Your task to perform on an android device: install app "YouTube Kids" Image 0: 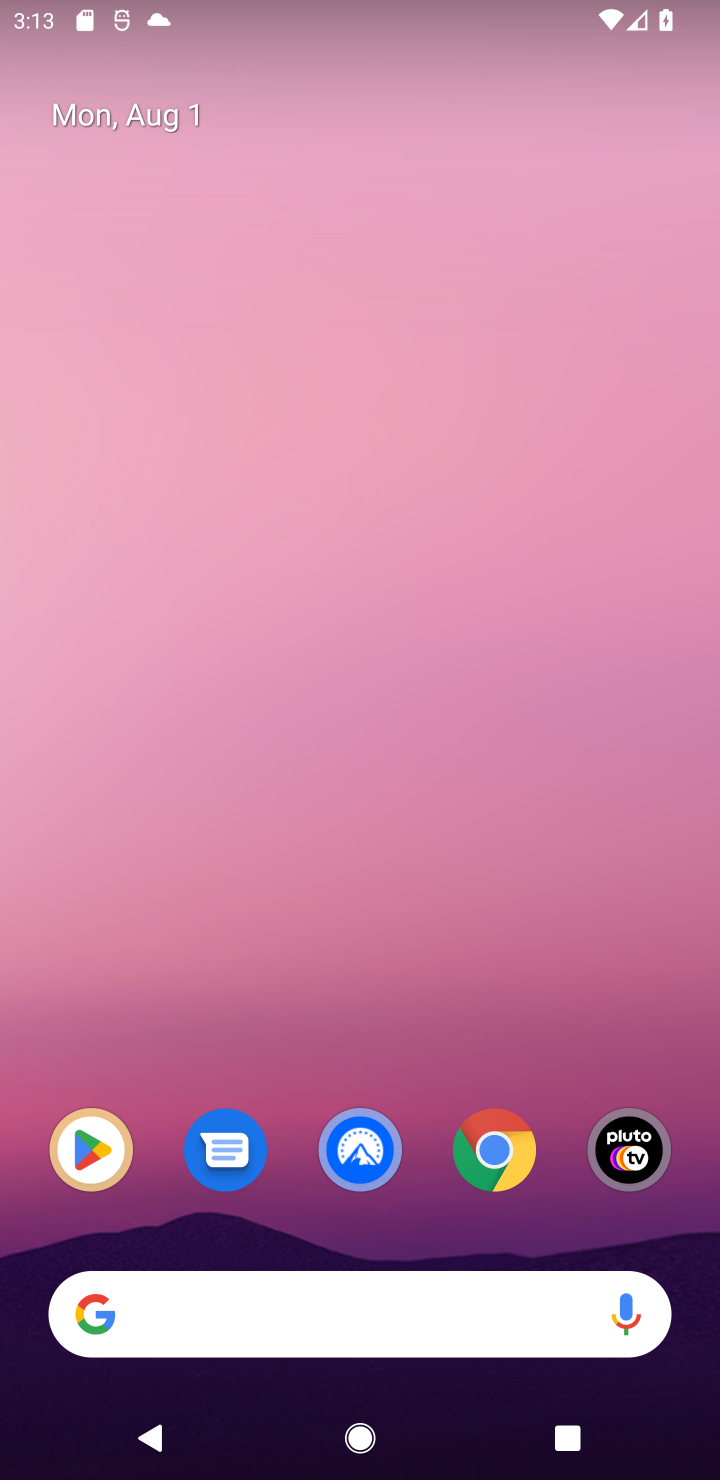
Step 0: click (127, 1163)
Your task to perform on an android device: install app "YouTube Kids" Image 1: 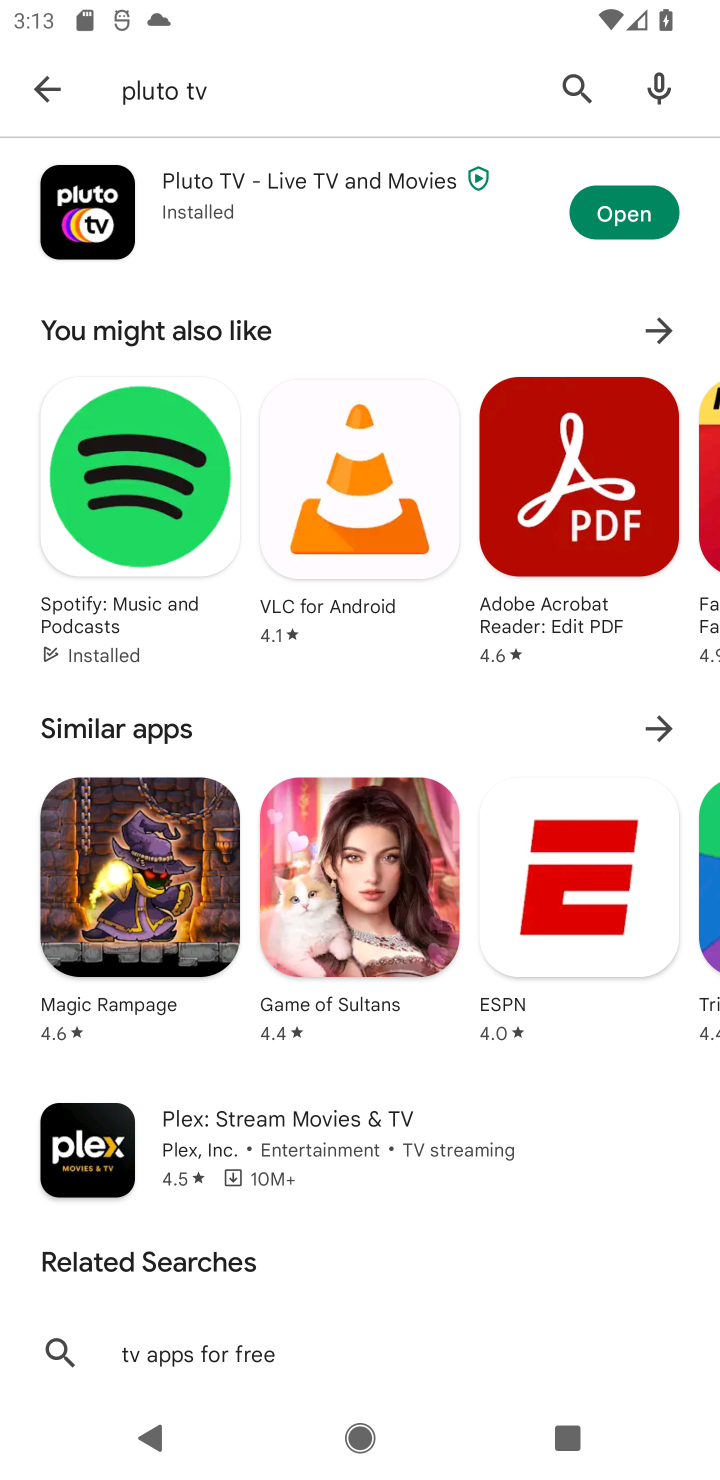
Step 1: click (585, 93)
Your task to perform on an android device: install app "YouTube Kids" Image 2: 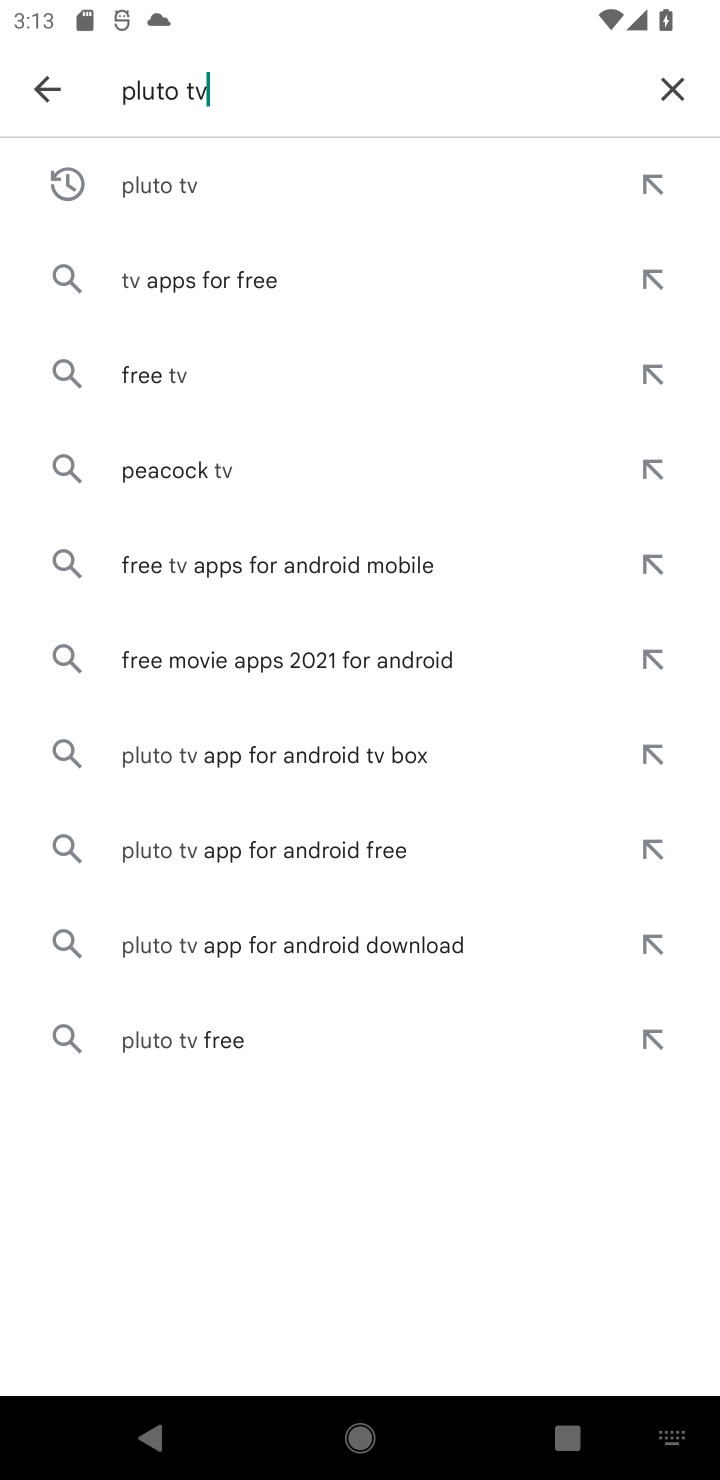
Step 2: click (669, 82)
Your task to perform on an android device: install app "YouTube Kids" Image 3: 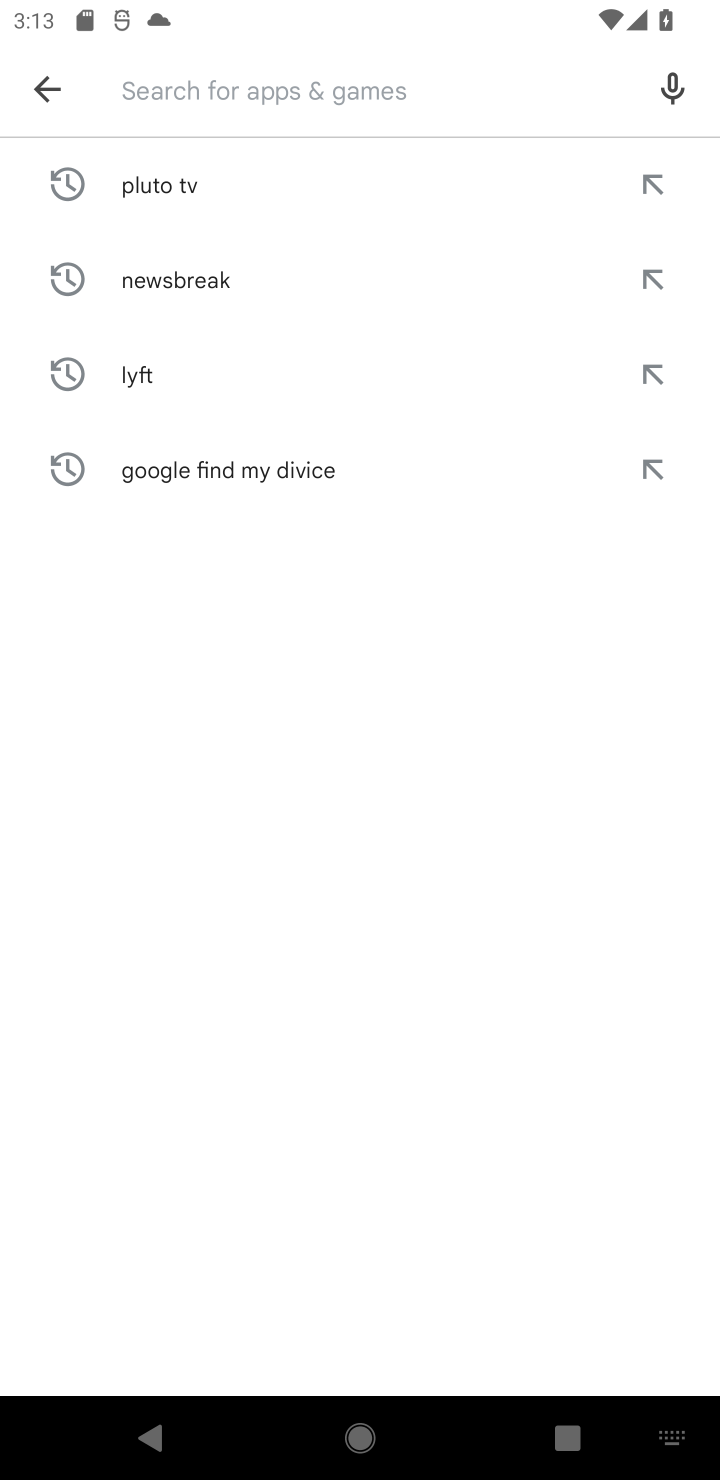
Step 3: type "youtube kid"
Your task to perform on an android device: install app "YouTube Kids" Image 4: 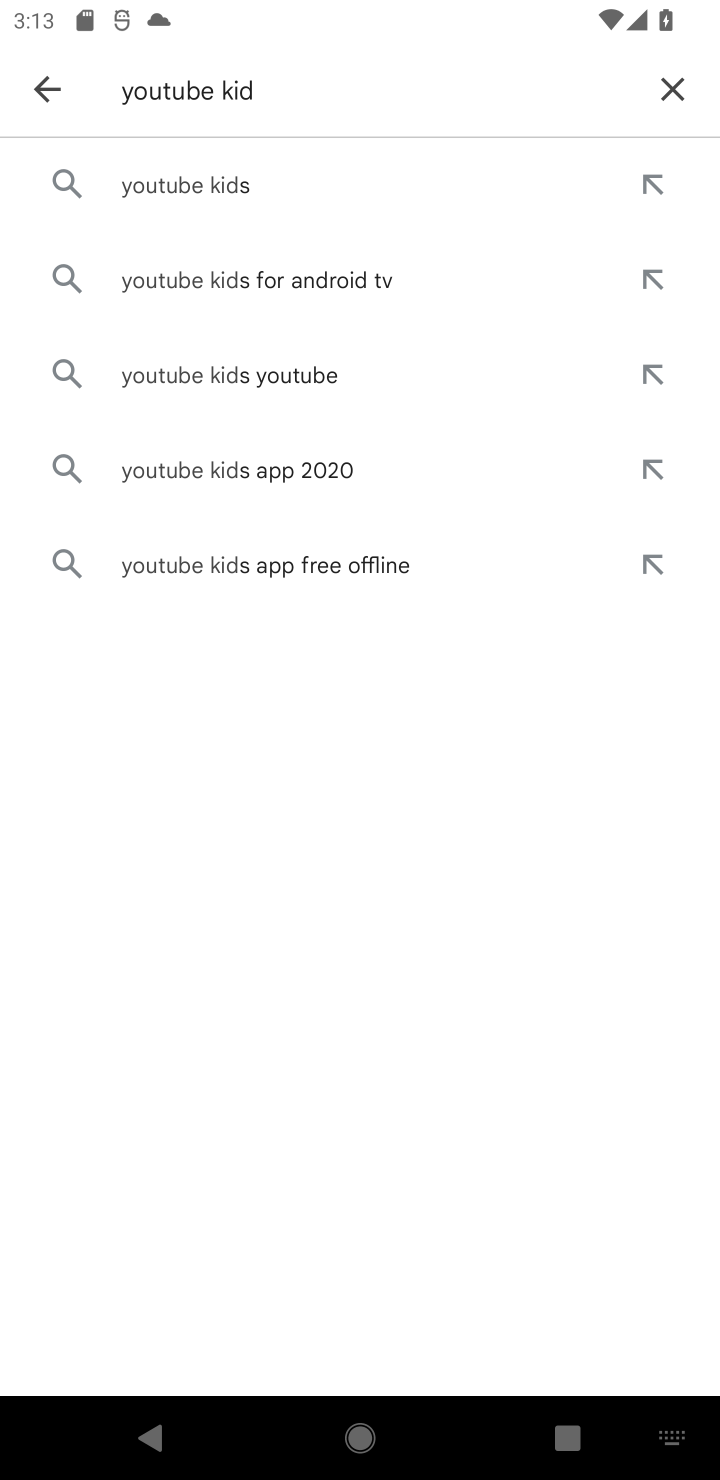
Step 4: click (300, 155)
Your task to perform on an android device: install app "YouTube Kids" Image 5: 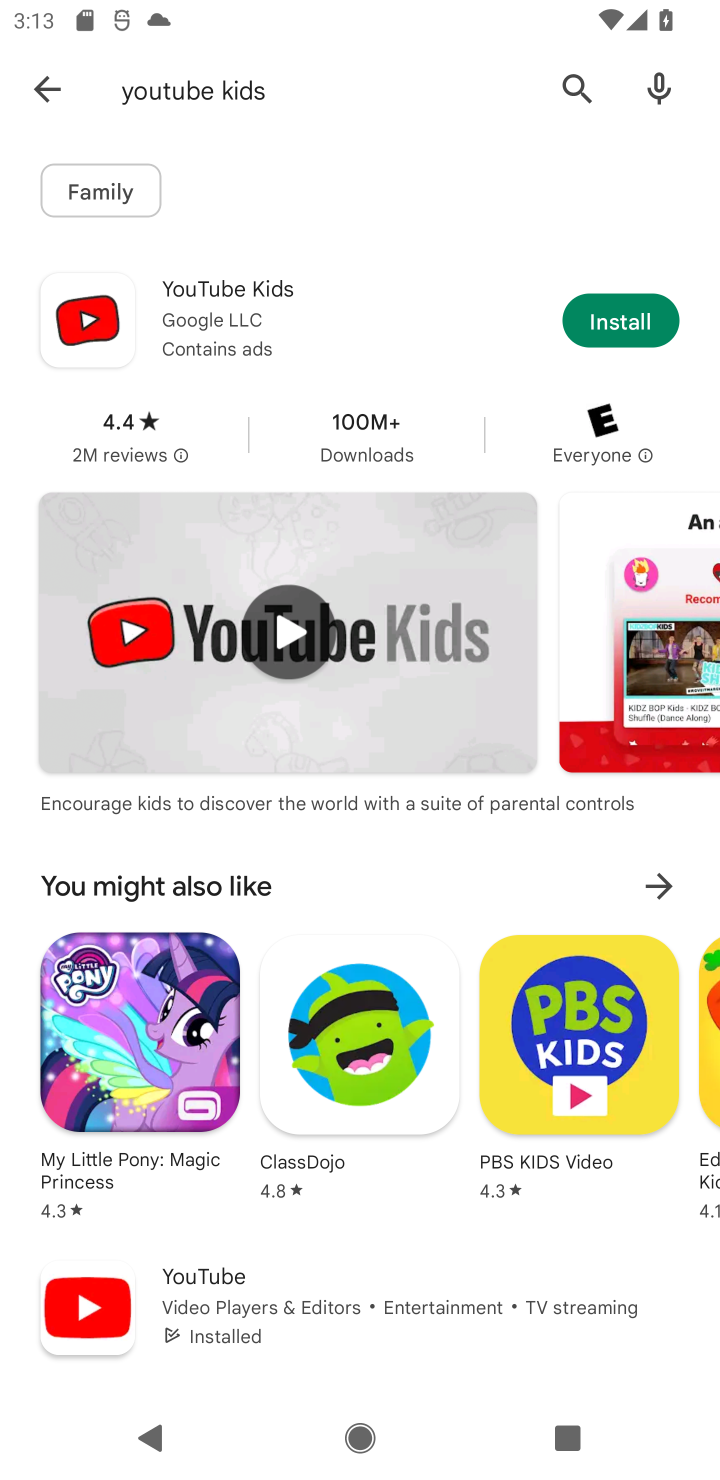
Step 5: click (636, 312)
Your task to perform on an android device: install app "YouTube Kids" Image 6: 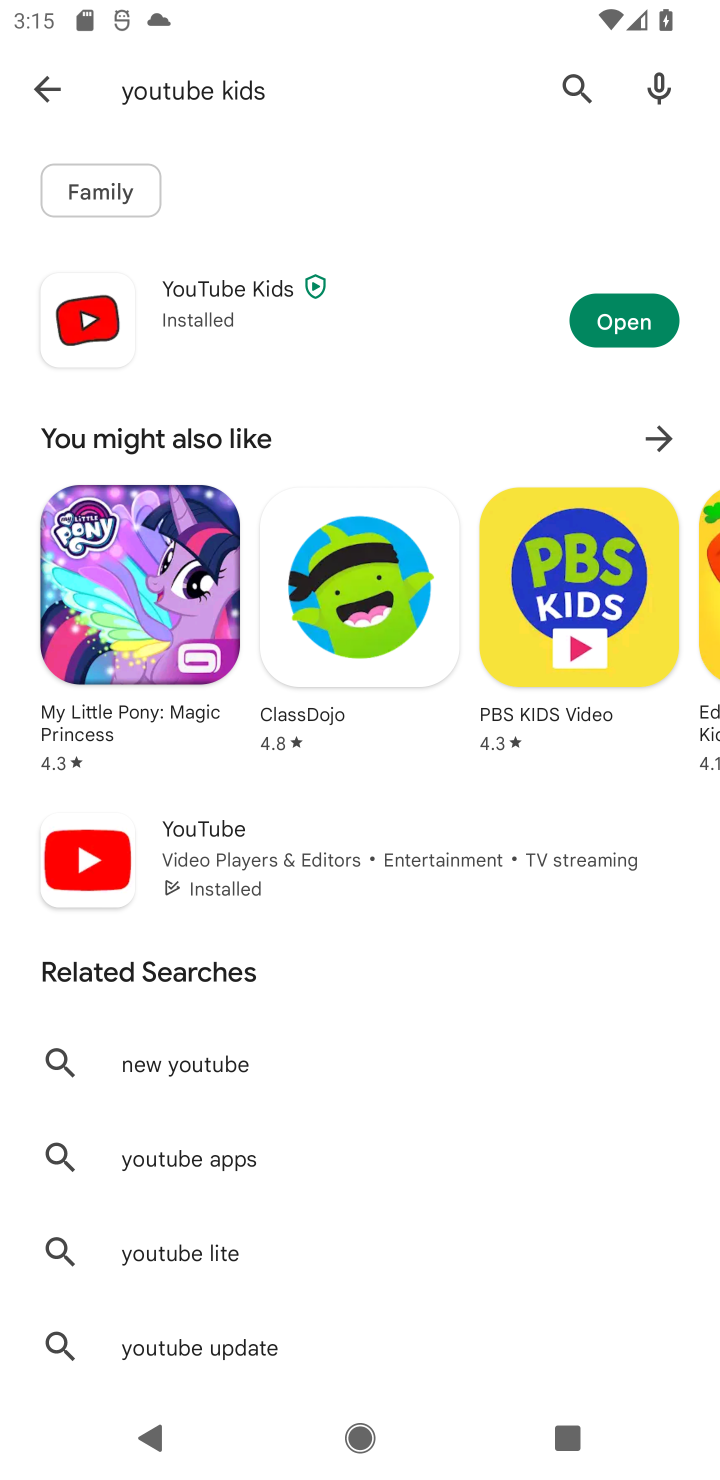
Step 6: task complete